Your task to perform on an android device: Open the Play Movies app and select the watchlist tab. Image 0: 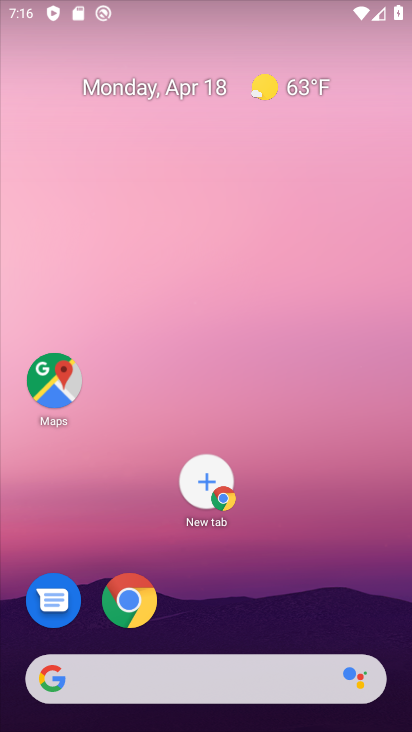
Step 0: drag from (312, 612) to (375, 9)
Your task to perform on an android device: Open the Play Movies app and select the watchlist tab. Image 1: 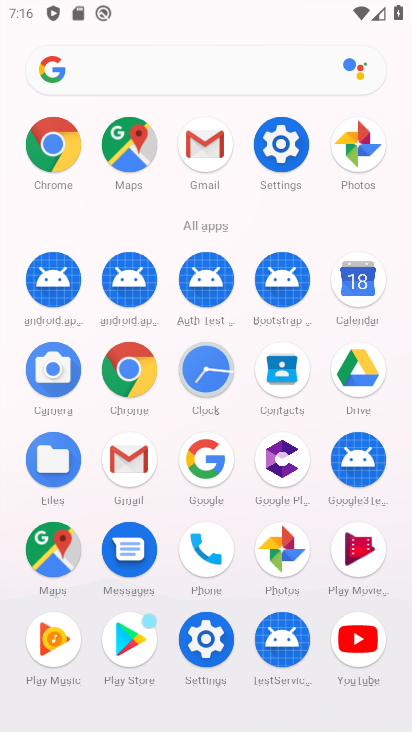
Step 1: click (356, 553)
Your task to perform on an android device: Open the Play Movies app and select the watchlist tab. Image 2: 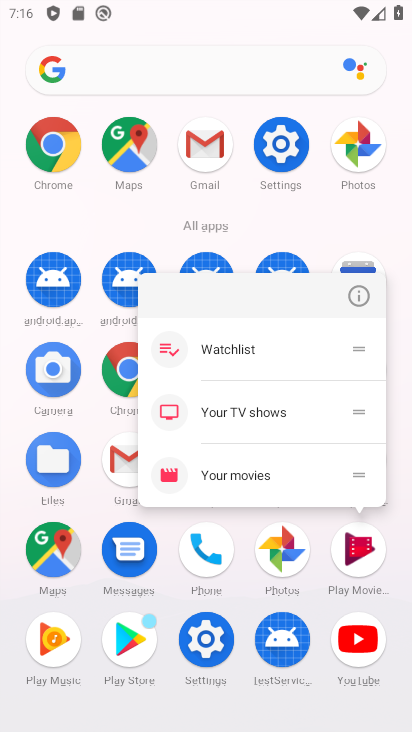
Step 2: click (370, 549)
Your task to perform on an android device: Open the Play Movies app and select the watchlist tab. Image 3: 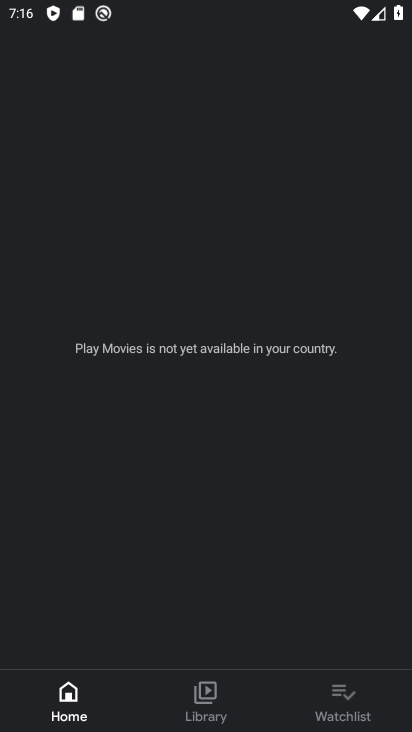
Step 3: click (333, 697)
Your task to perform on an android device: Open the Play Movies app and select the watchlist tab. Image 4: 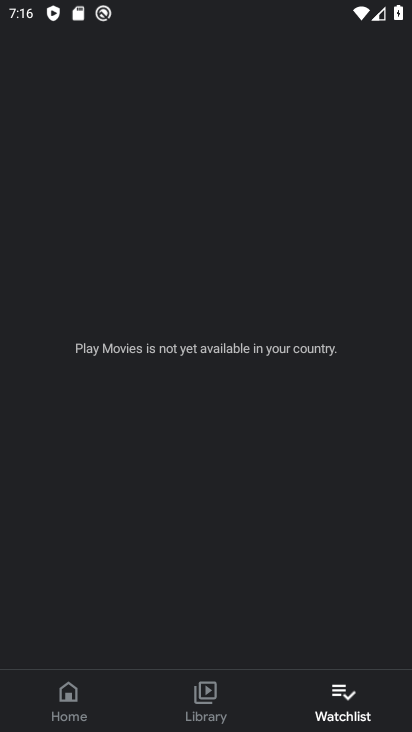
Step 4: task complete